Your task to perform on an android device: toggle show notifications on the lock screen Image 0: 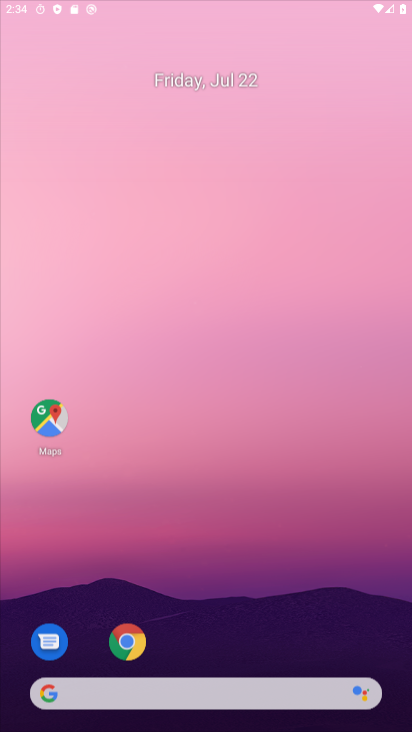
Step 0: press home button
Your task to perform on an android device: toggle show notifications on the lock screen Image 1: 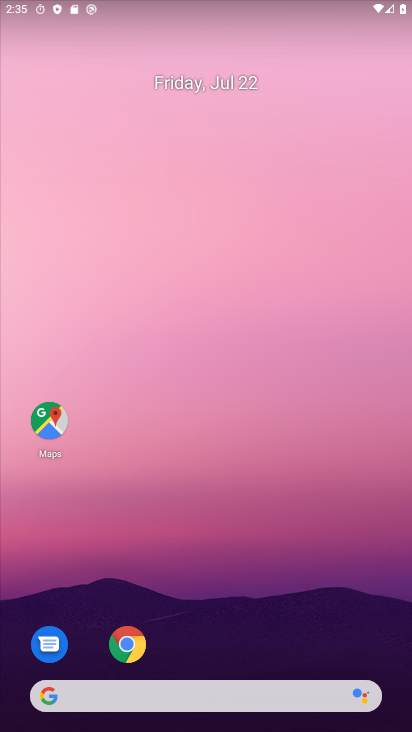
Step 1: drag from (237, 647) to (251, 104)
Your task to perform on an android device: toggle show notifications on the lock screen Image 2: 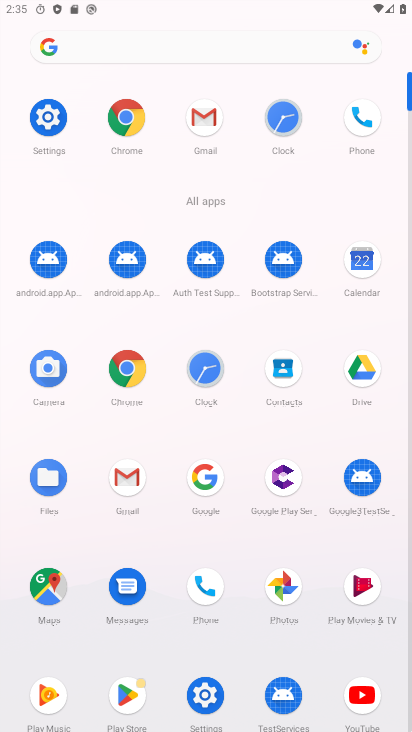
Step 2: click (47, 118)
Your task to perform on an android device: toggle show notifications on the lock screen Image 3: 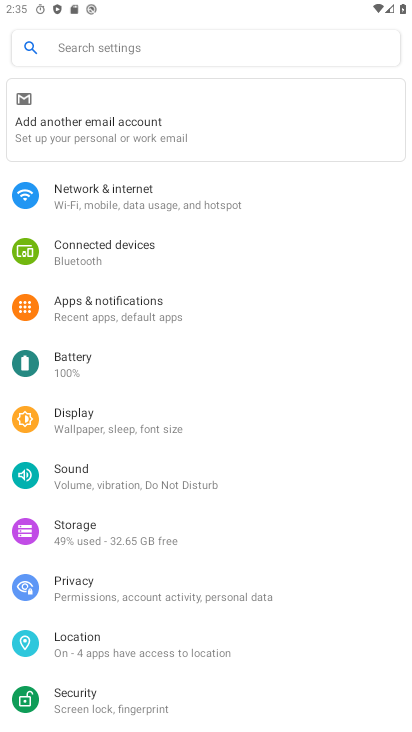
Step 3: click (95, 313)
Your task to perform on an android device: toggle show notifications on the lock screen Image 4: 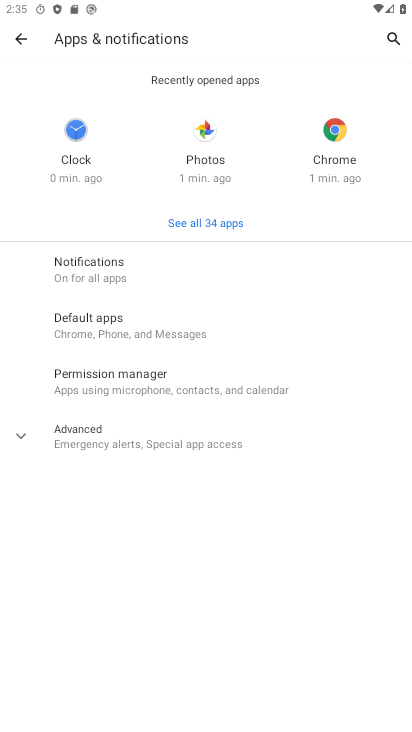
Step 4: click (94, 275)
Your task to perform on an android device: toggle show notifications on the lock screen Image 5: 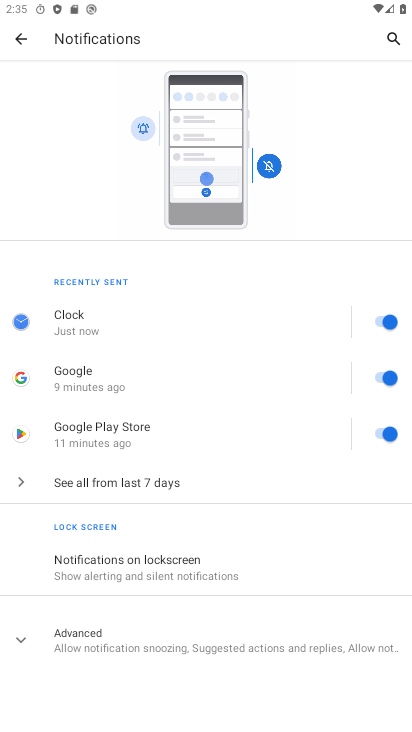
Step 5: click (133, 573)
Your task to perform on an android device: toggle show notifications on the lock screen Image 6: 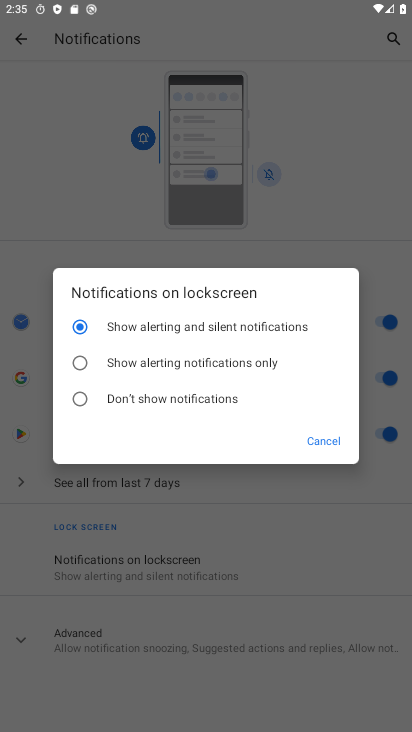
Step 6: click (77, 398)
Your task to perform on an android device: toggle show notifications on the lock screen Image 7: 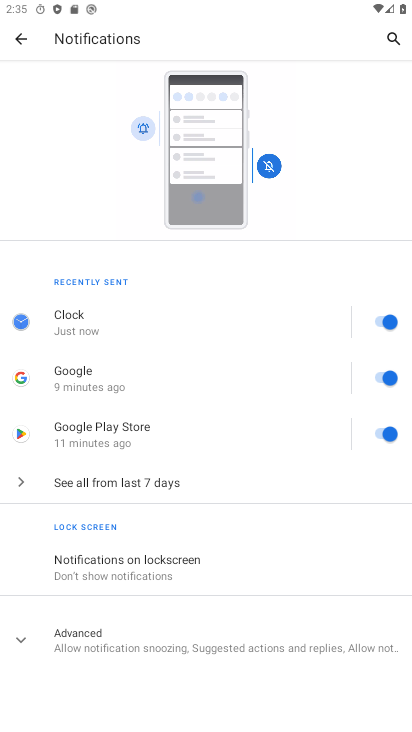
Step 7: task complete